Your task to perform on an android device: Go to Google Image 0: 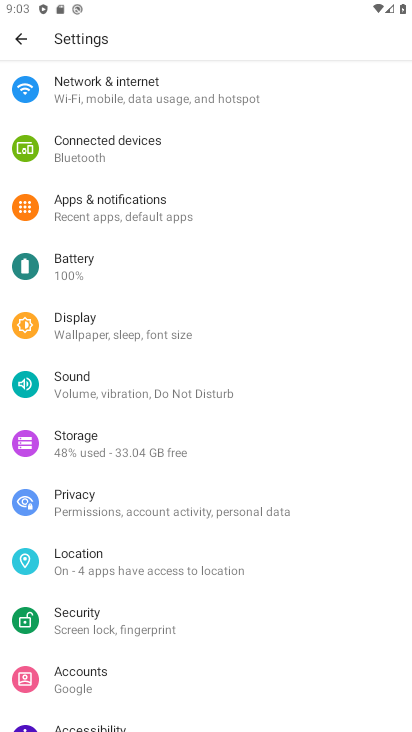
Step 0: press home button
Your task to perform on an android device: Go to Google Image 1: 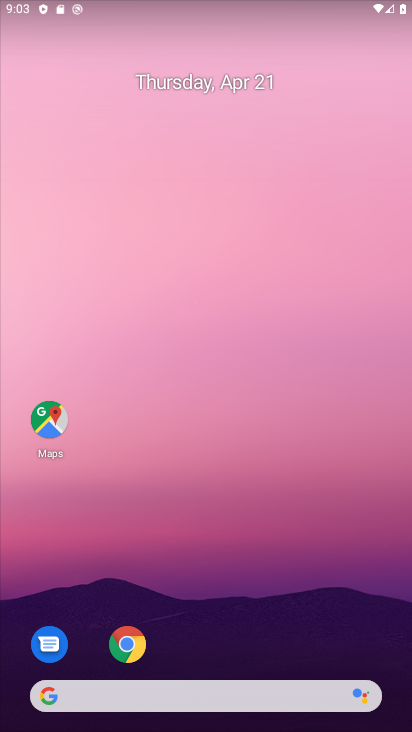
Step 1: drag from (215, 593) to (239, 116)
Your task to perform on an android device: Go to Google Image 2: 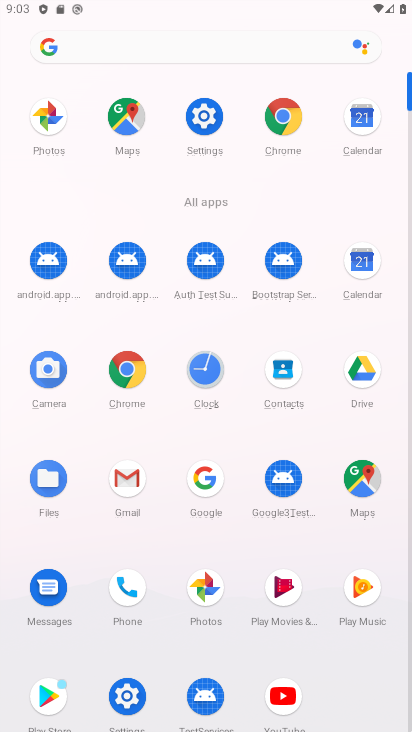
Step 2: click (209, 480)
Your task to perform on an android device: Go to Google Image 3: 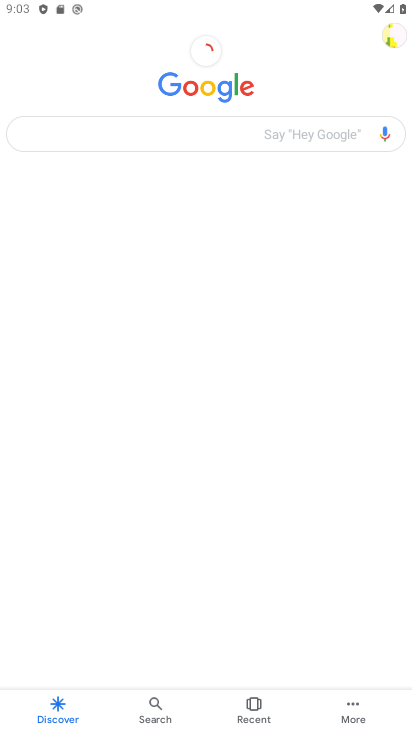
Step 3: task complete